Your task to perform on an android device: Go to Google Image 0: 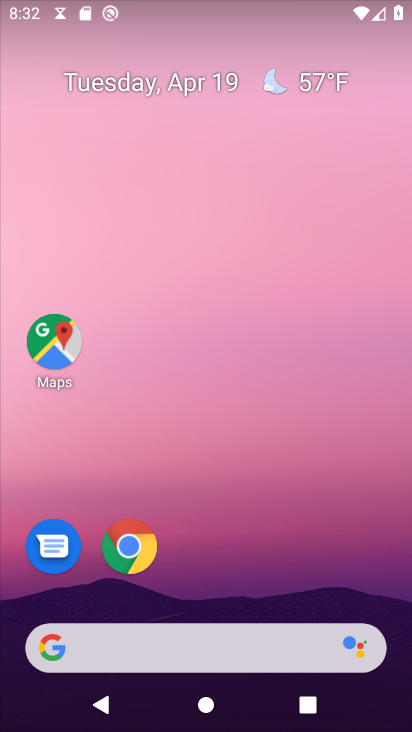
Step 0: click (168, 647)
Your task to perform on an android device: Go to Google Image 1: 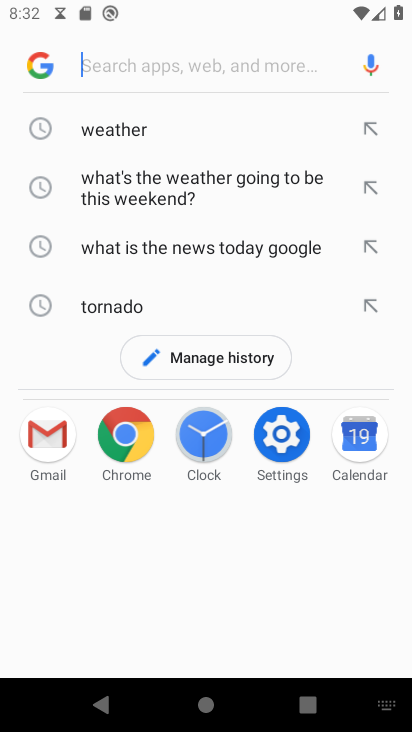
Step 1: click (47, 64)
Your task to perform on an android device: Go to Google Image 2: 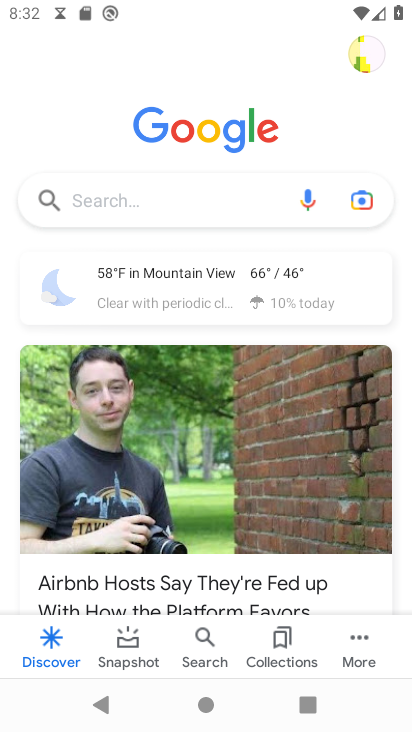
Step 2: task complete